Your task to perform on an android device: Turn on the flashlight Image 0: 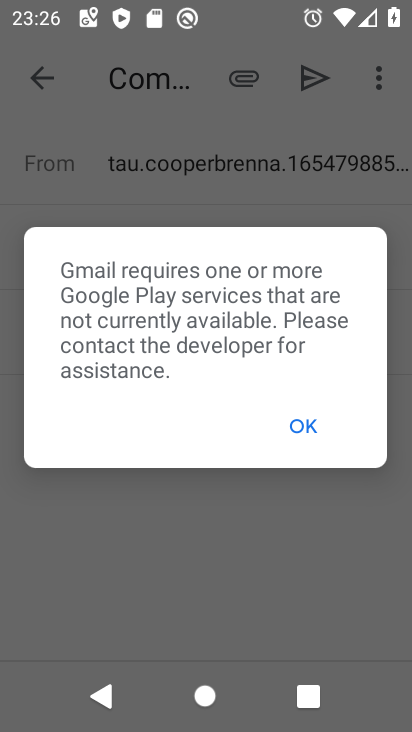
Step 0: click (311, 423)
Your task to perform on an android device: Turn on the flashlight Image 1: 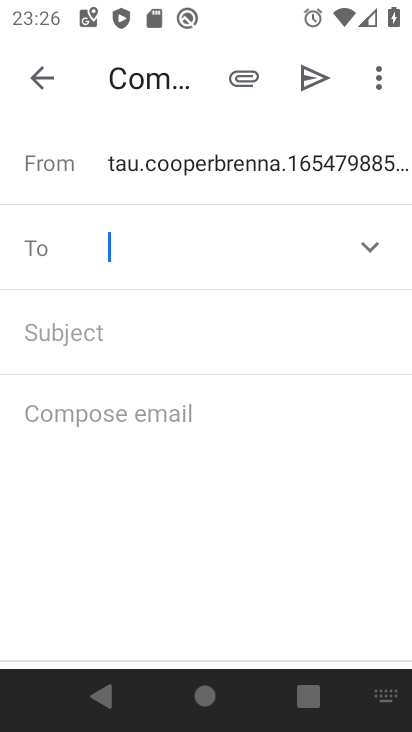
Step 1: press back button
Your task to perform on an android device: Turn on the flashlight Image 2: 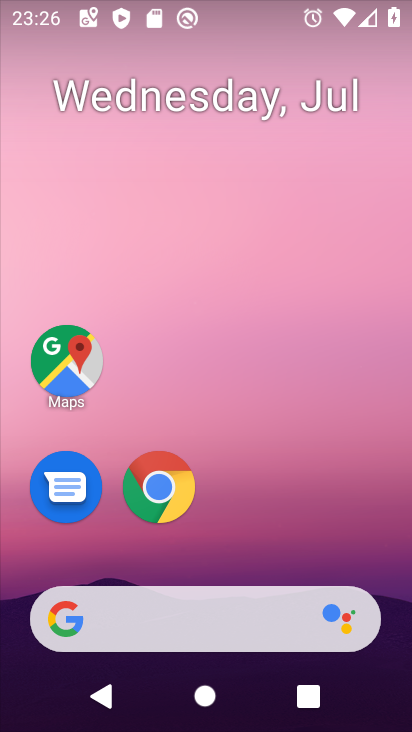
Step 2: drag from (238, 549) to (313, 21)
Your task to perform on an android device: Turn on the flashlight Image 3: 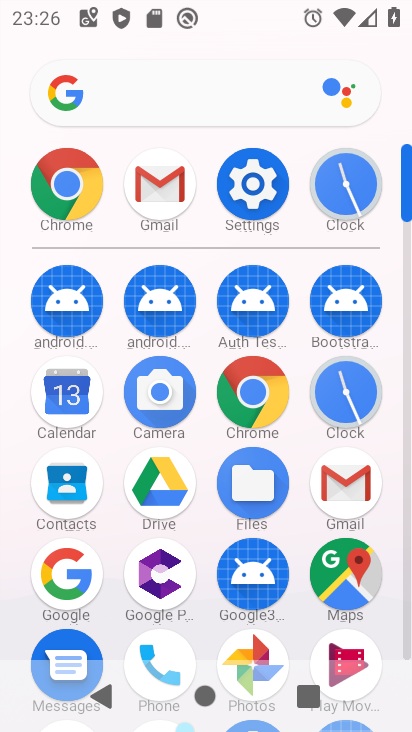
Step 3: click (244, 180)
Your task to perform on an android device: Turn on the flashlight Image 4: 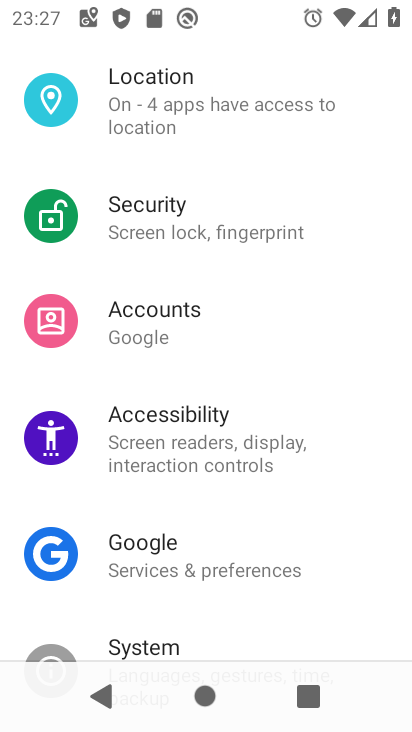
Step 4: drag from (187, 202) to (192, 660)
Your task to perform on an android device: Turn on the flashlight Image 5: 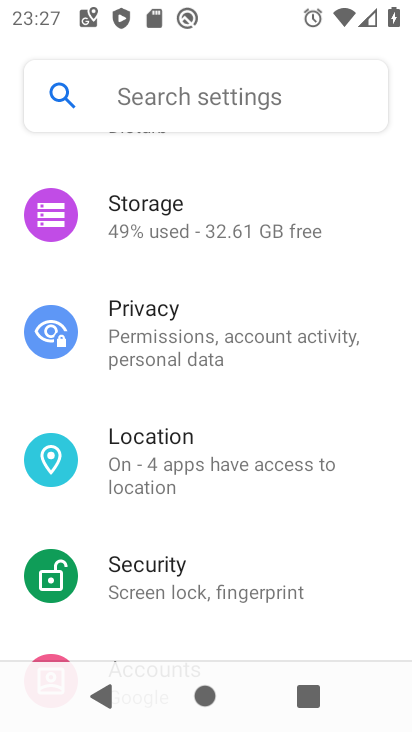
Step 5: click (144, 87)
Your task to perform on an android device: Turn on the flashlight Image 6: 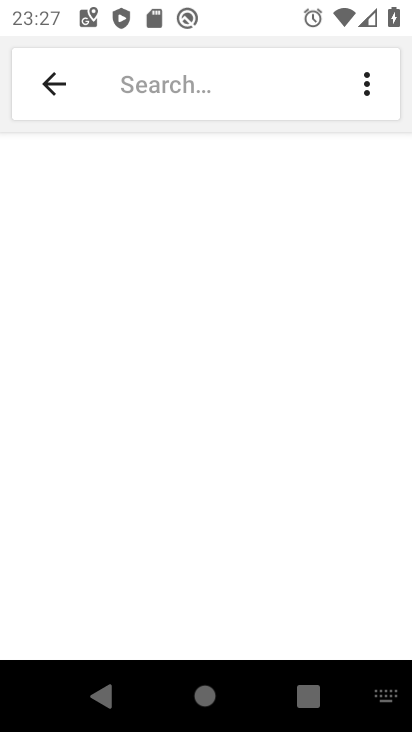
Step 6: click (153, 90)
Your task to perform on an android device: Turn on the flashlight Image 7: 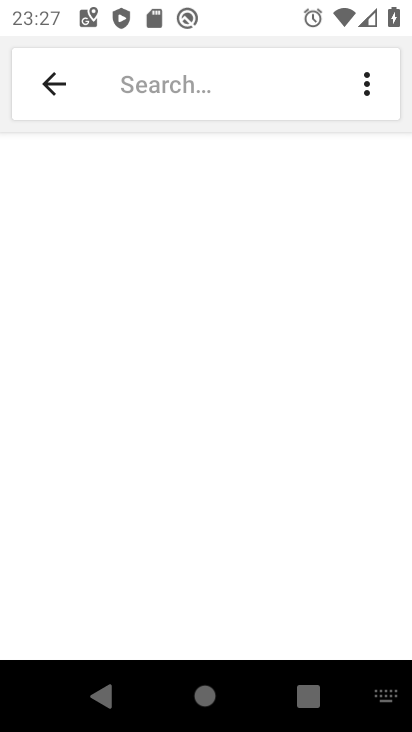
Step 7: type "flashlight"
Your task to perform on an android device: Turn on the flashlight Image 8: 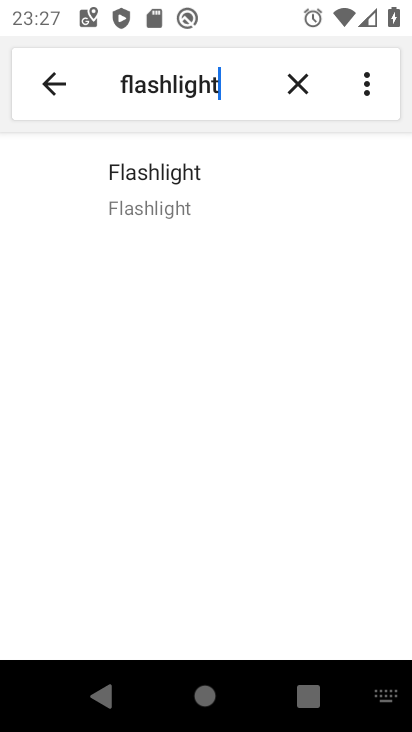
Step 8: click (143, 185)
Your task to perform on an android device: Turn on the flashlight Image 9: 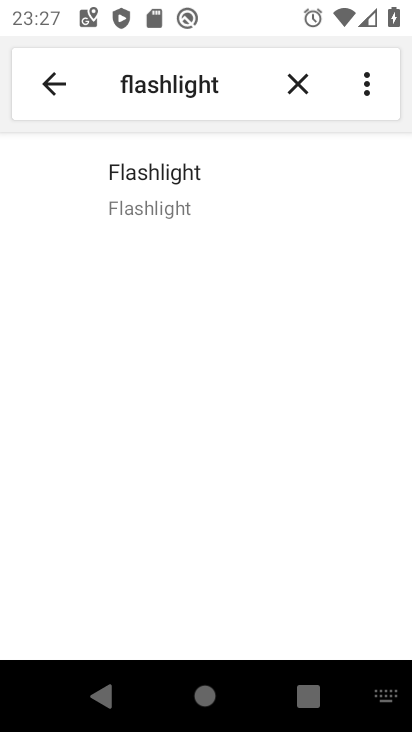
Step 9: click (164, 172)
Your task to perform on an android device: Turn on the flashlight Image 10: 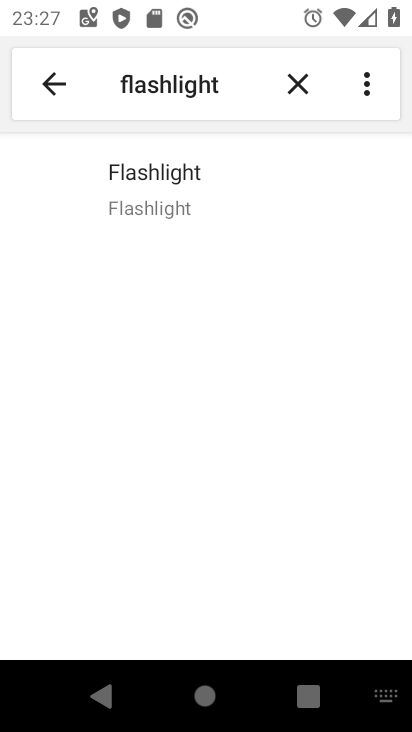
Step 10: task complete